Your task to perform on an android device: Open network settings Image 0: 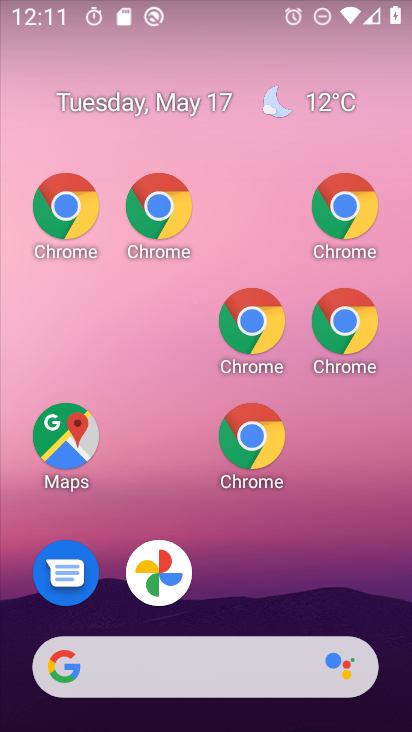
Step 0: drag from (363, 630) to (265, 177)
Your task to perform on an android device: Open network settings Image 1: 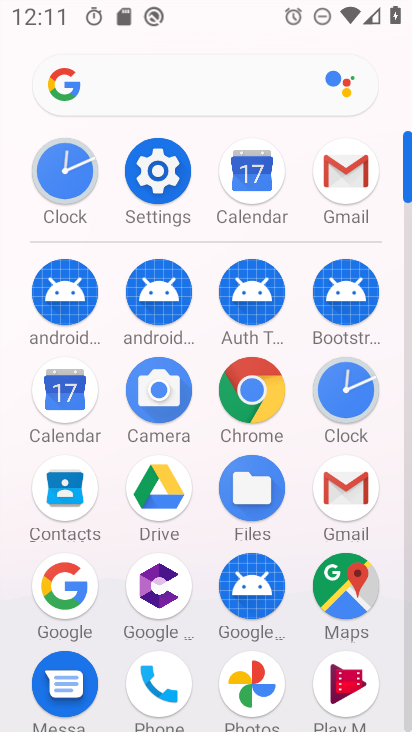
Step 1: click (170, 156)
Your task to perform on an android device: Open network settings Image 2: 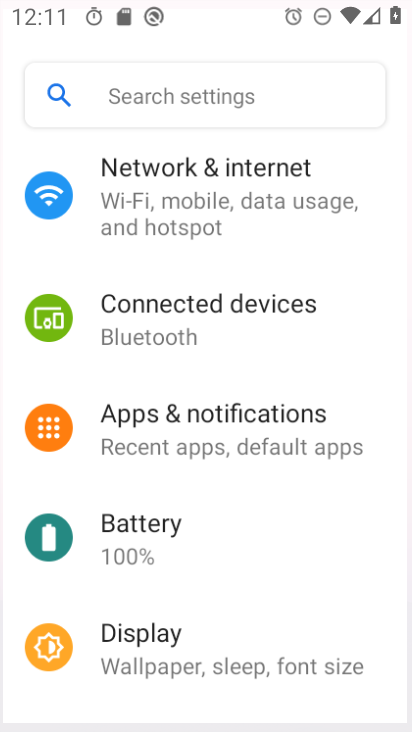
Step 2: click (166, 165)
Your task to perform on an android device: Open network settings Image 3: 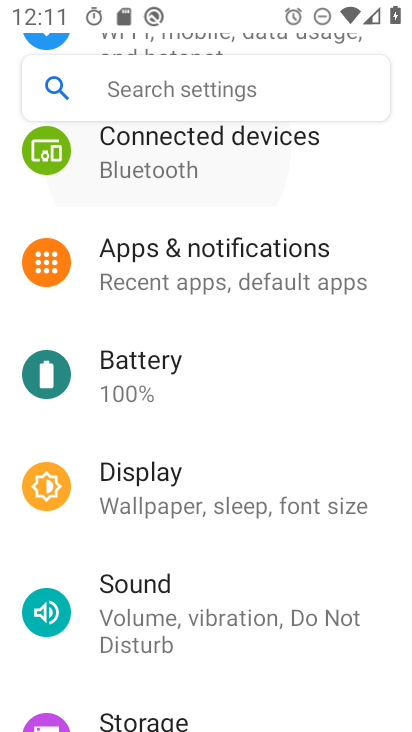
Step 3: click (166, 165)
Your task to perform on an android device: Open network settings Image 4: 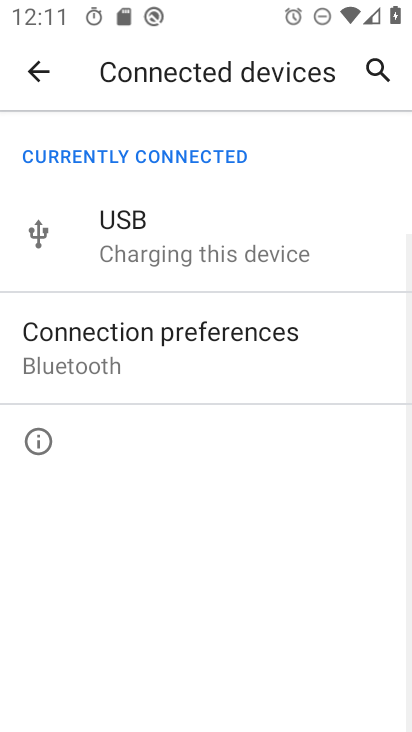
Step 4: click (37, 61)
Your task to perform on an android device: Open network settings Image 5: 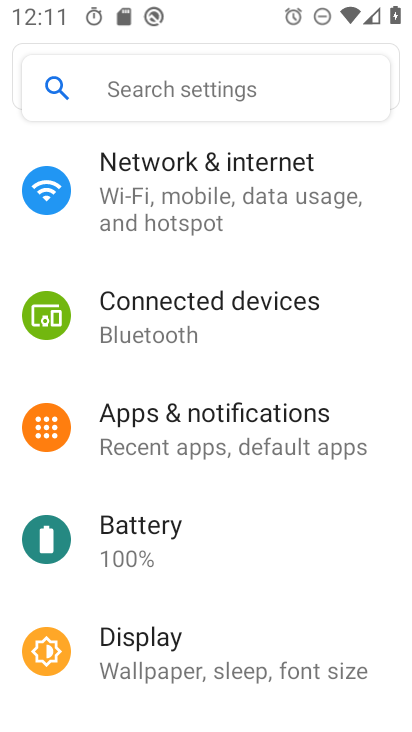
Step 5: click (197, 207)
Your task to perform on an android device: Open network settings Image 6: 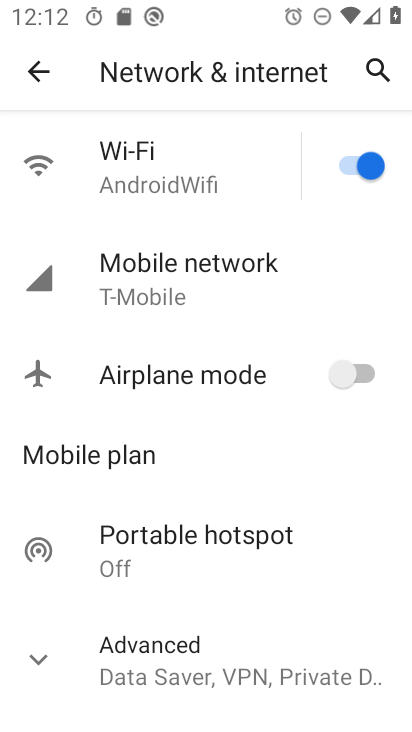
Step 6: task complete